Your task to perform on an android device: move a message to another label in the gmail app Image 0: 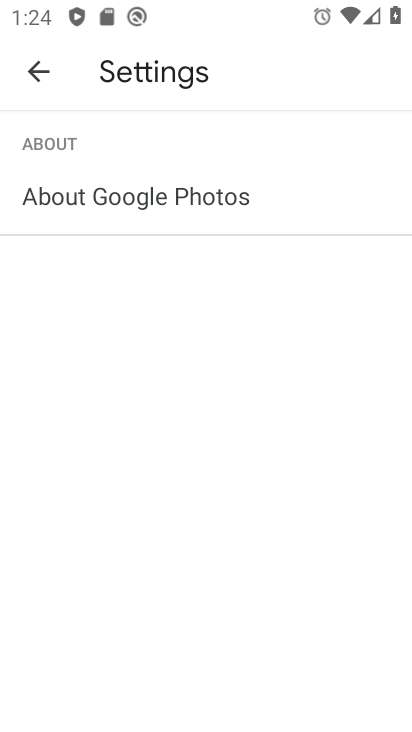
Step 0: press home button
Your task to perform on an android device: move a message to another label in the gmail app Image 1: 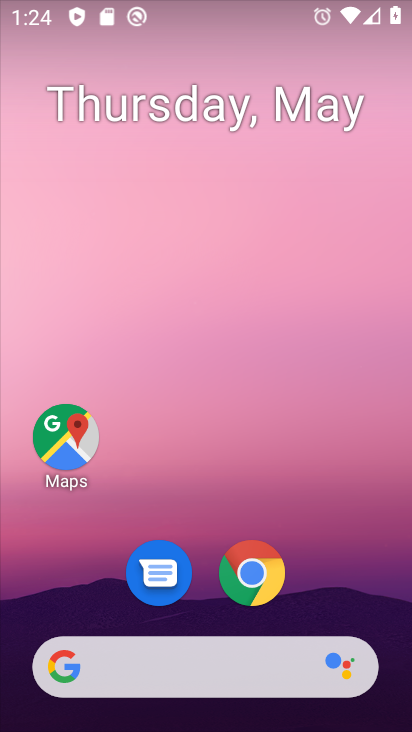
Step 1: drag from (402, 653) to (386, 251)
Your task to perform on an android device: move a message to another label in the gmail app Image 2: 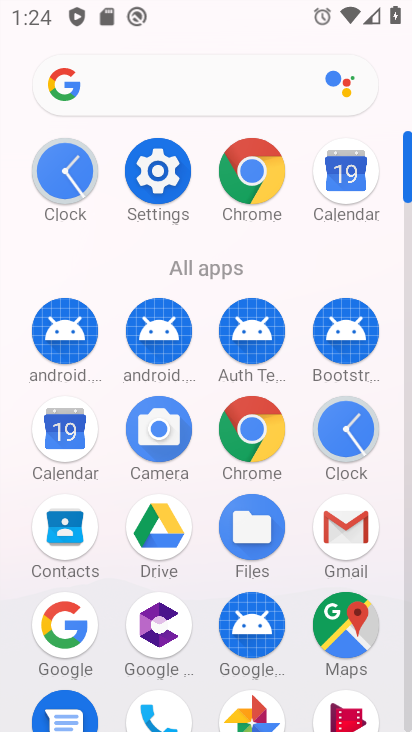
Step 2: click (355, 521)
Your task to perform on an android device: move a message to another label in the gmail app Image 3: 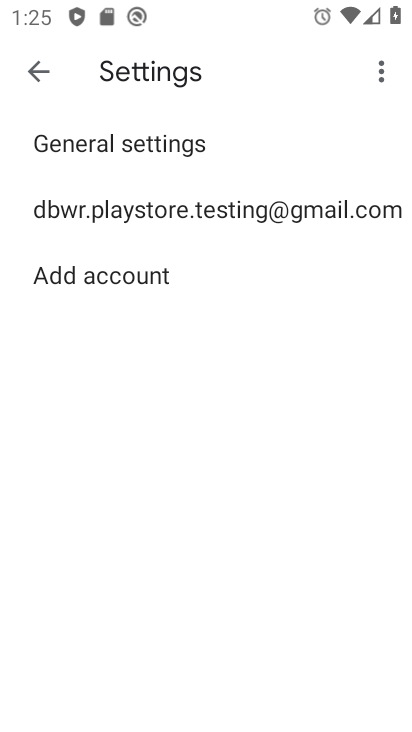
Step 3: click (46, 71)
Your task to perform on an android device: move a message to another label in the gmail app Image 4: 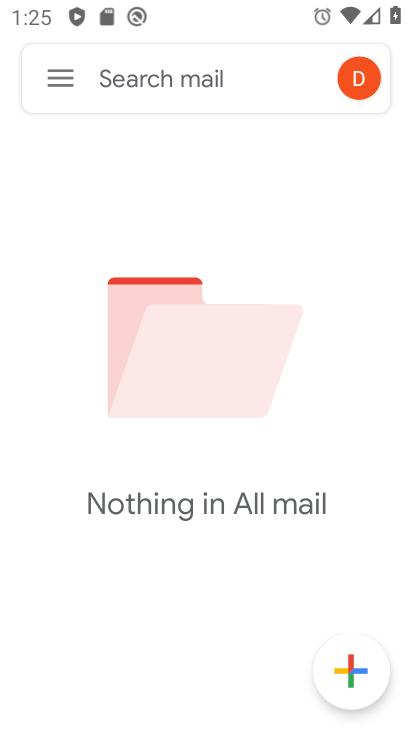
Step 4: click (48, 78)
Your task to perform on an android device: move a message to another label in the gmail app Image 5: 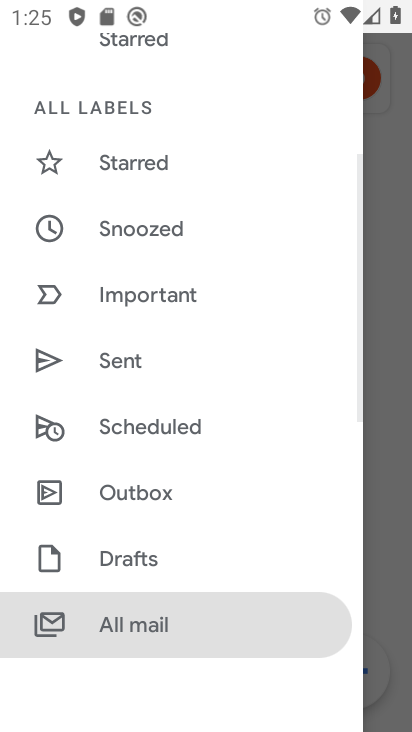
Step 5: drag from (255, 113) to (325, 531)
Your task to perform on an android device: move a message to another label in the gmail app Image 6: 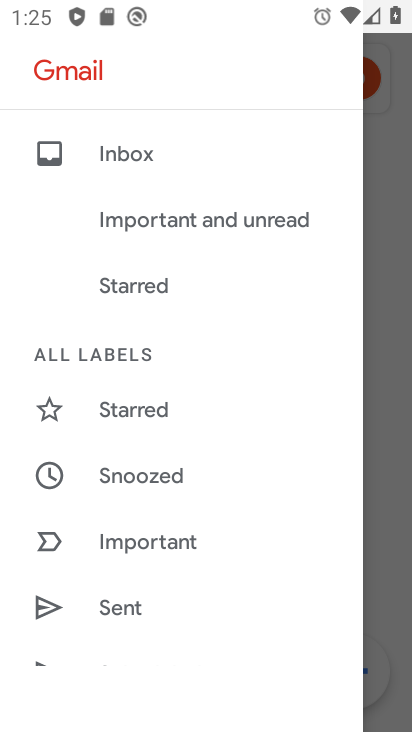
Step 6: click (143, 147)
Your task to perform on an android device: move a message to another label in the gmail app Image 7: 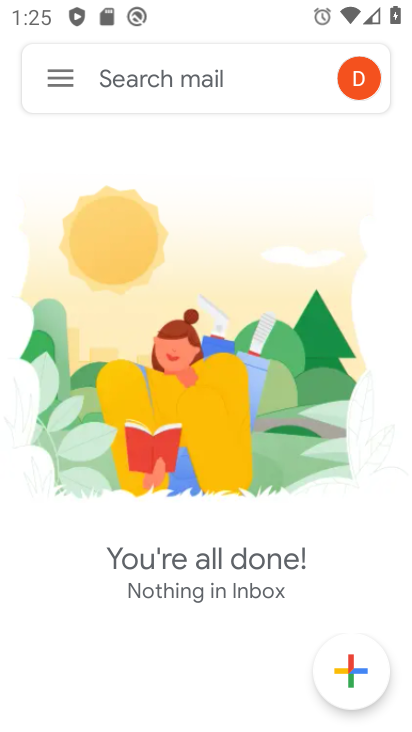
Step 7: task complete